Your task to perform on an android device: open app "Etsy: Buy & Sell Unique Items" Image 0: 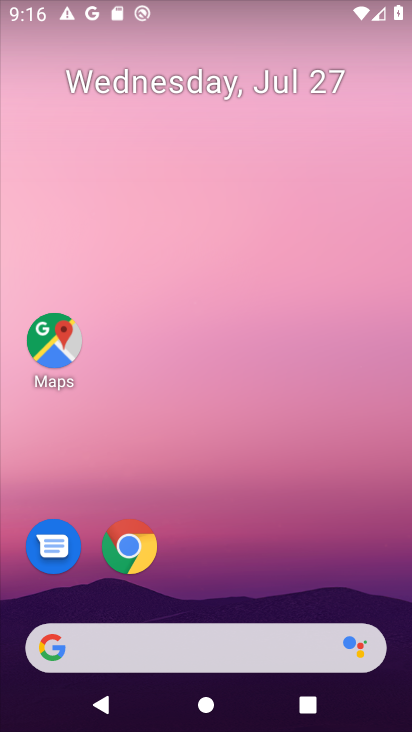
Step 0: drag from (213, 563) to (112, 143)
Your task to perform on an android device: open app "Etsy: Buy & Sell Unique Items" Image 1: 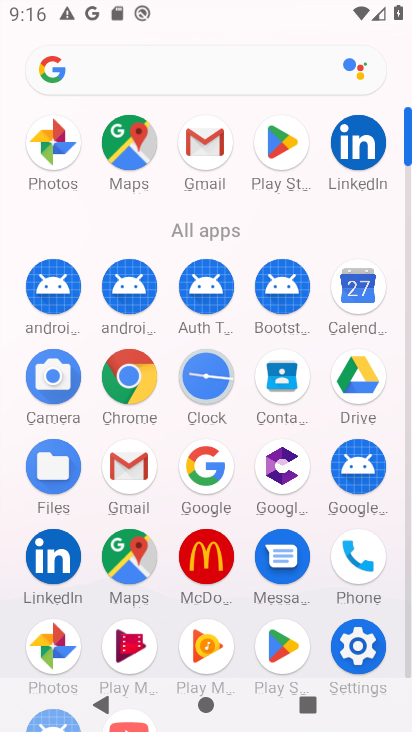
Step 1: click (273, 137)
Your task to perform on an android device: open app "Etsy: Buy & Sell Unique Items" Image 2: 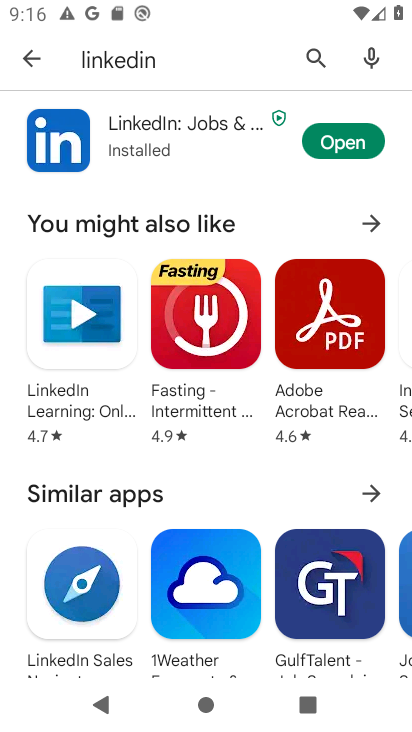
Step 2: click (311, 58)
Your task to perform on an android device: open app "Etsy: Buy & Sell Unique Items" Image 3: 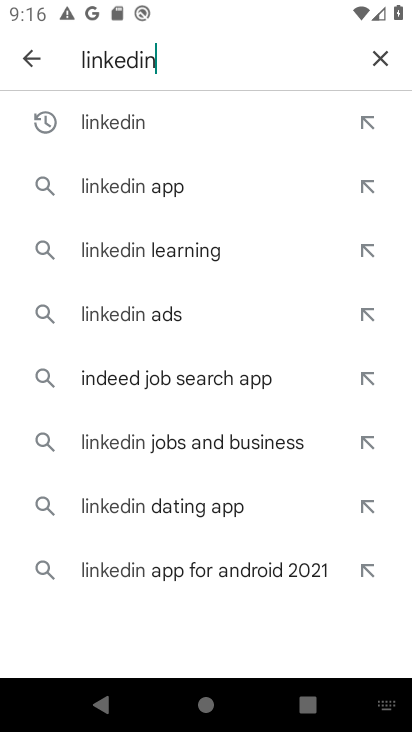
Step 3: click (389, 60)
Your task to perform on an android device: open app "Etsy: Buy & Sell Unique Items" Image 4: 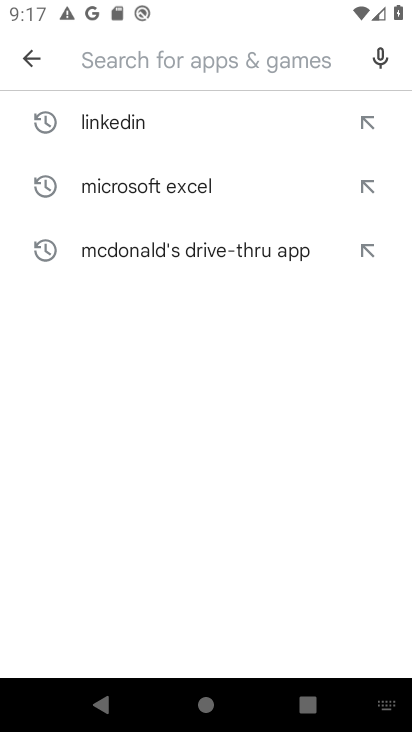
Step 4: type "Etsy: Buy & Sell Unique Items"
Your task to perform on an android device: open app "Etsy: Buy & Sell Unique Items" Image 5: 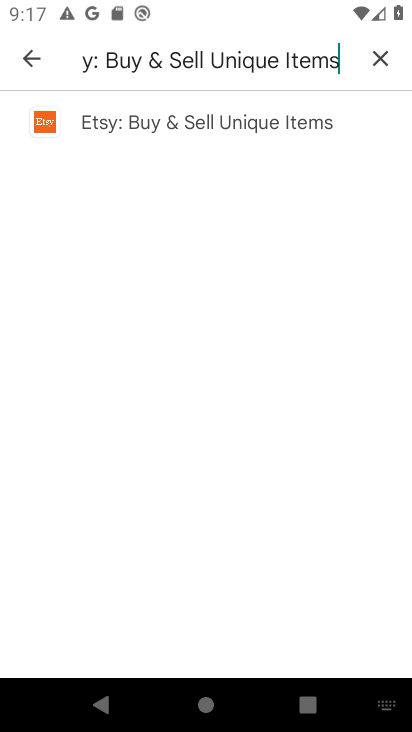
Step 5: click (140, 120)
Your task to perform on an android device: open app "Etsy: Buy & Sell Unique Items" Image 6: 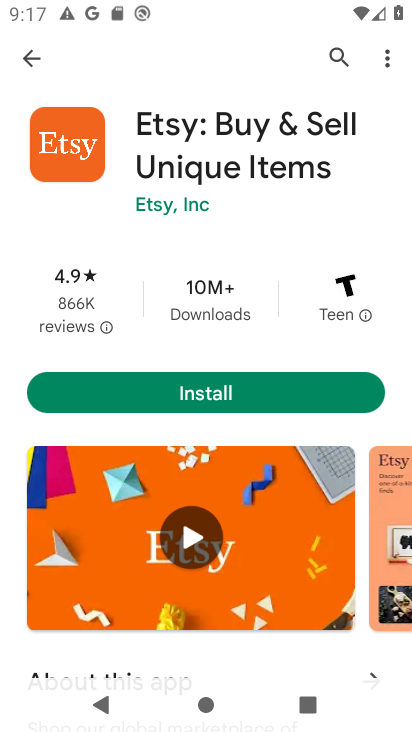
Step 6: click (140, 382)
Your task to perform on an android device: open app "Etsy: Buy & Sell Unique Items" Image 7: 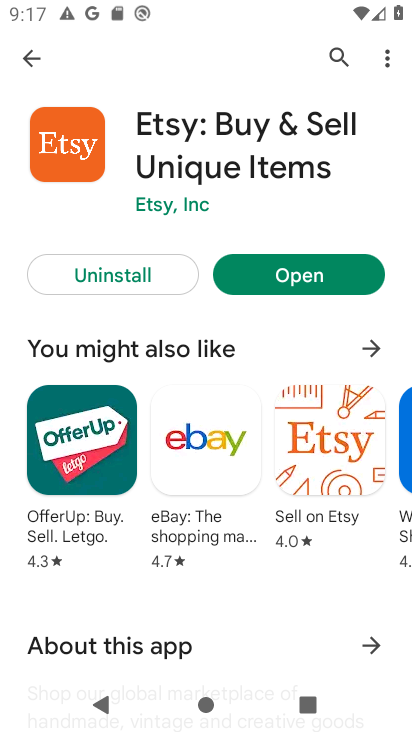
Step 7: click (311, 247)
Your task to perform on an android device: open app "Etsy: Buy & Sell Unique Items" Image 8: 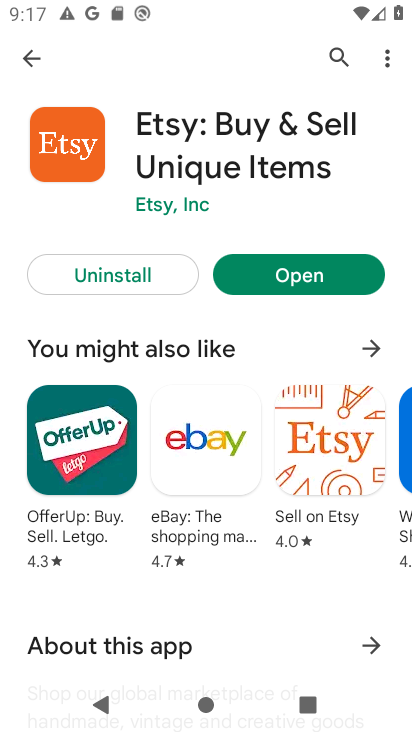
Step 8: click (306, 272)
Your task to perform on an android device: open app "Etsy: Buy & Sell Unique Items" Image 9: 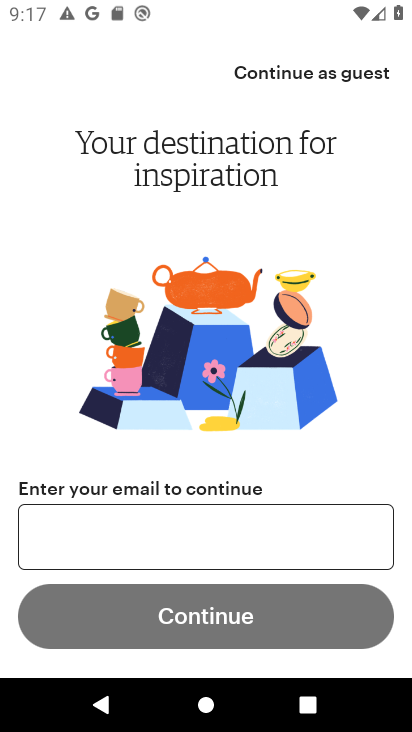
Step 9: click (344, 77)
Your task to perform on an android device: open app "Etsy: Buy & Sell Unique Items" Image 10: 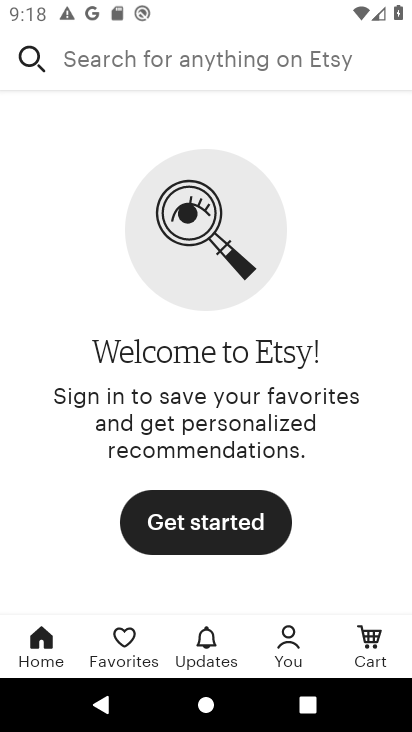
Step 10: task complete